Your task to perform on an android device: Go to wifi settings Image 0: 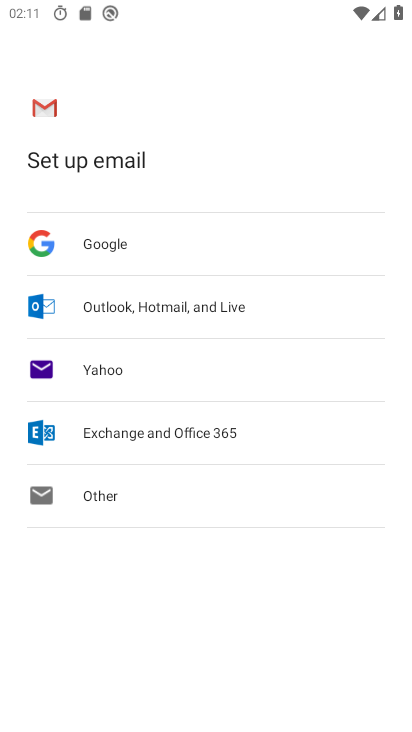
Step 0: press home button
Your task to perform on an android device: Go to wifi settings Image 1: 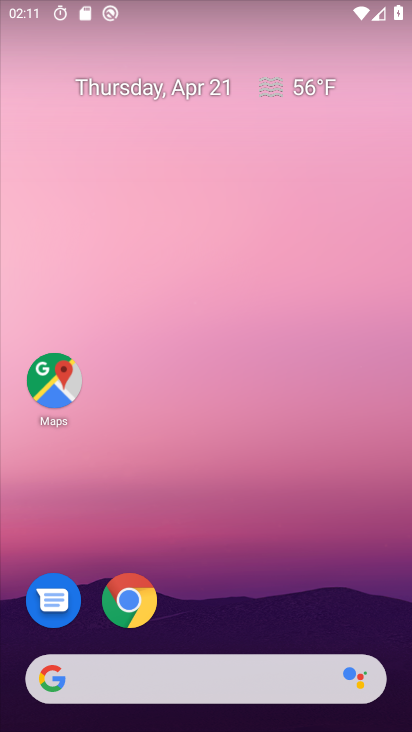
Step 1: drag from (246, 588) to (257, 130)
Your task to perform on an android device: Go to wifi settings Image 2: 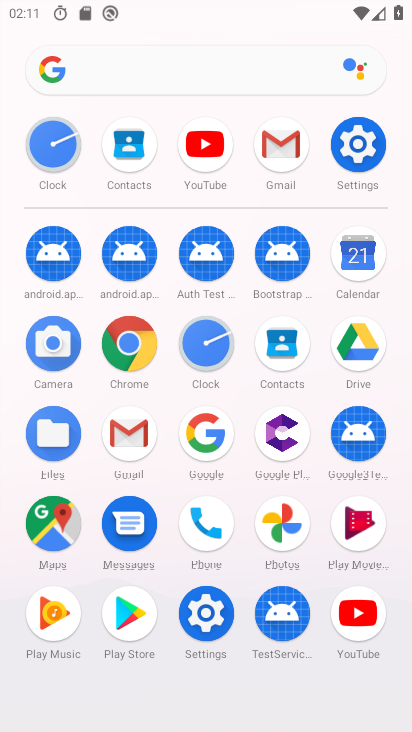
Step 2: click (356, 140)
Your task to perform on an android device: Go to wifi settings Image 3: 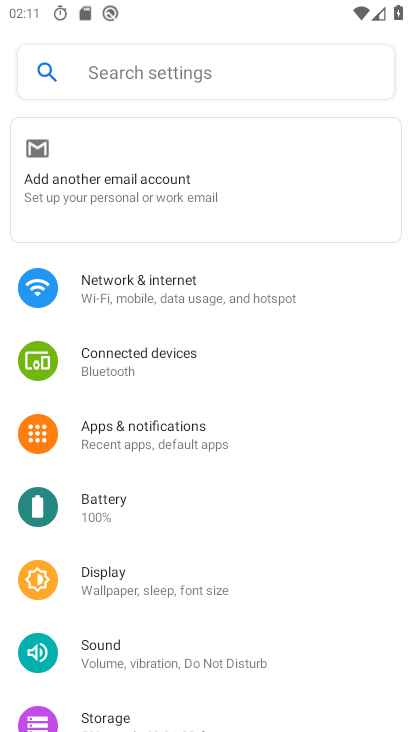
Step 3: click (222, 295)
Your task to perform on an android device: Go to wifi settings Image 4: 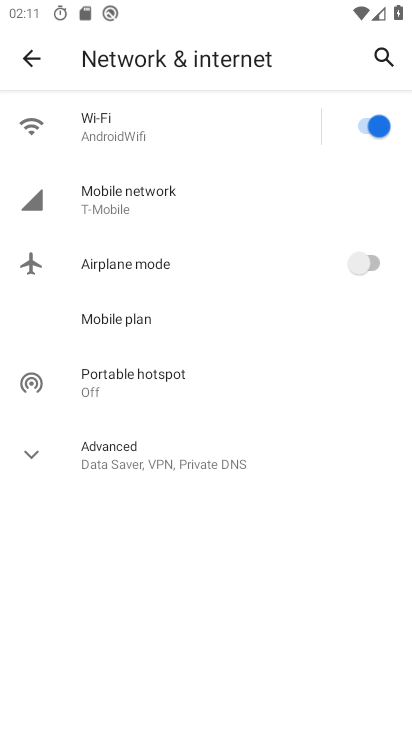
Step 4: click (186, 126)
Your task to perform on an android device: Go to wifi settings Image 5: 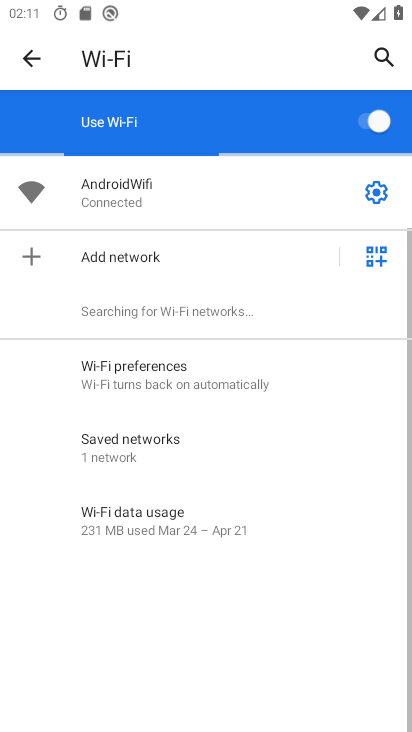
Step 5: task complete